Your task to perform on an android device: open a bookmark in the chrome app Image 0: 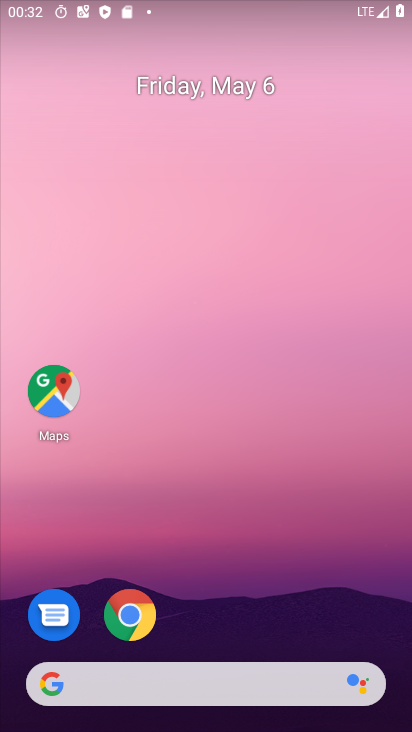
Step 0: click (129, 614)
Your task to perform on an android device: open a bookmark in the chrome app Image 1: 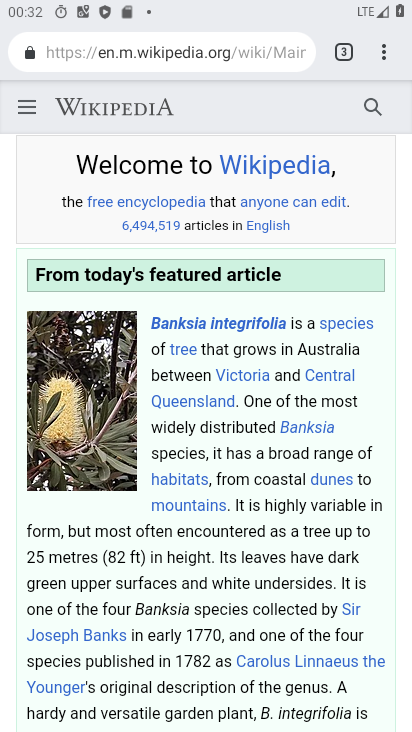
Step 1: click (375, 48)
Your task to perform on an android device: open a bookmark in the chrome app Image 2: 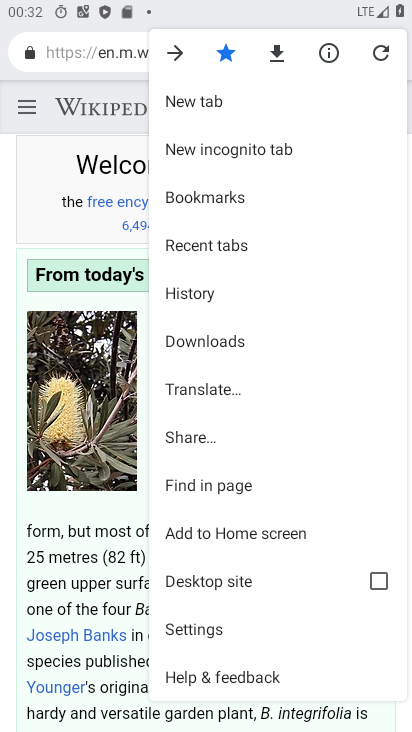
Step 2: click (205, 202)
Your task to perform on an android device: open a bookmark in the chrome app Image 3: 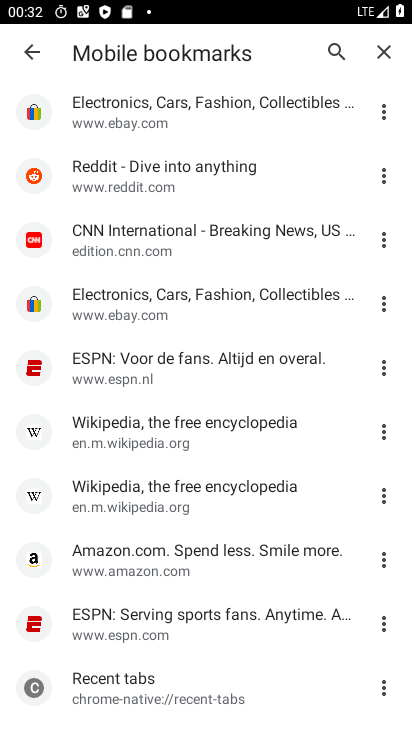
Step 3: click (133, 372)
Your task to perform on an android device: open a bookmark in the chrome app Image 4: 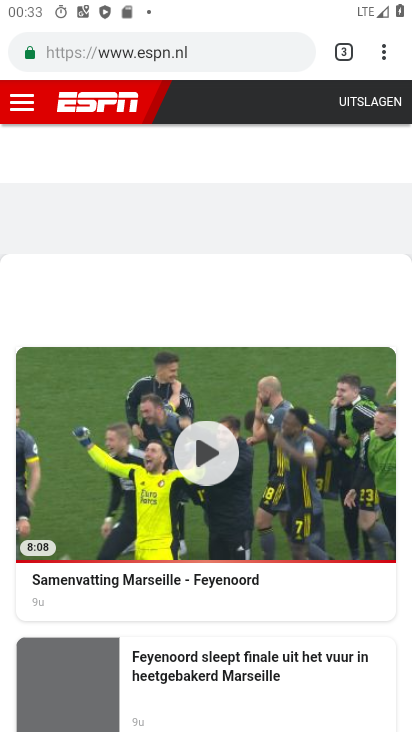
Step 4: task complete